Your task to perform on an android device: toggle airplane mode Image 0: 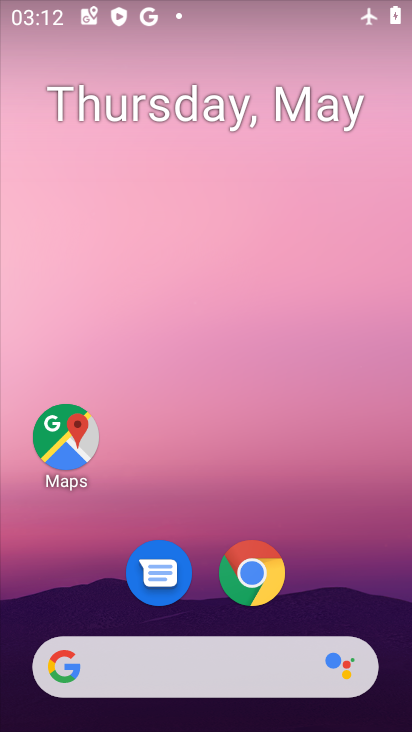
Step 0: drag from (355, 600) to (353, 150)
Your task to perform on an android device: toggle airplane mode Image 1: 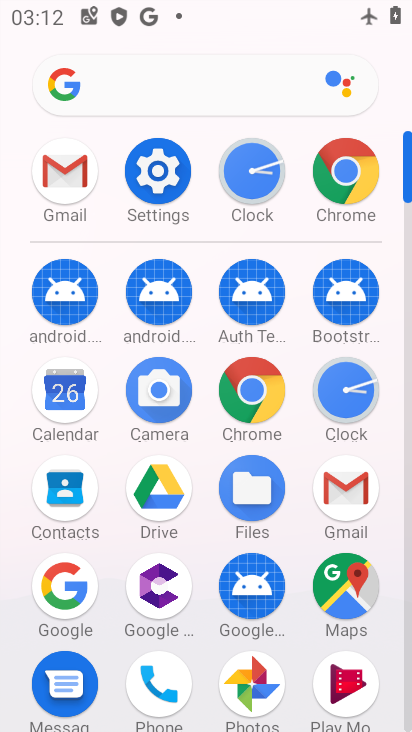
Step 1: click (161, 159)
Your task to perform on an android device: toggle airplane mode Image 2: 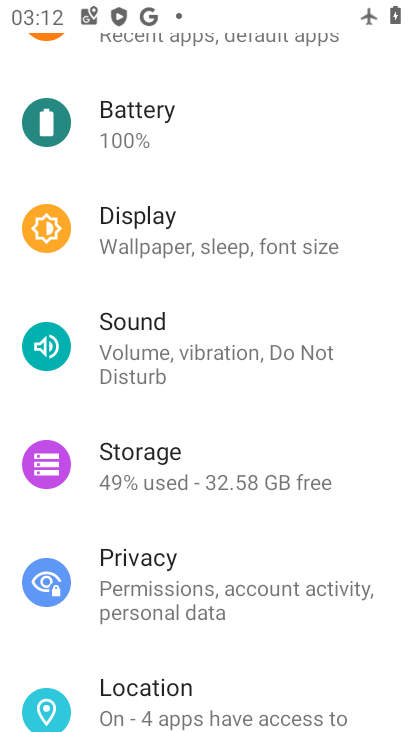
Step 2: drag from (251, 106) to (255, 533)
Your task to perform on an android device: toggle airplane mode Image 3: 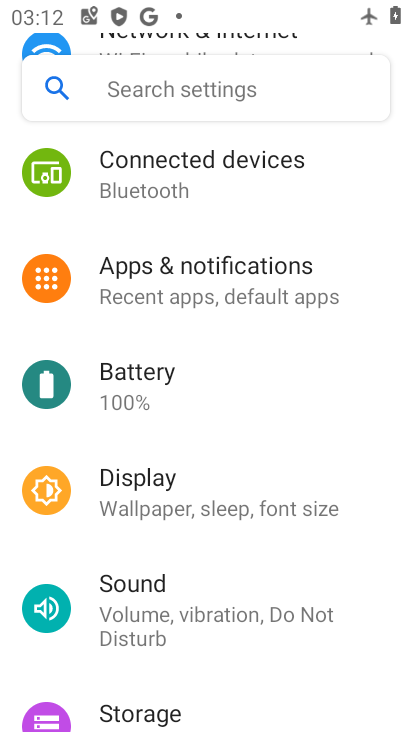
Step 3: drag from (197, 160) to (217, 521)
Your task to perform on an android device: toggle airplane mode Image 4: 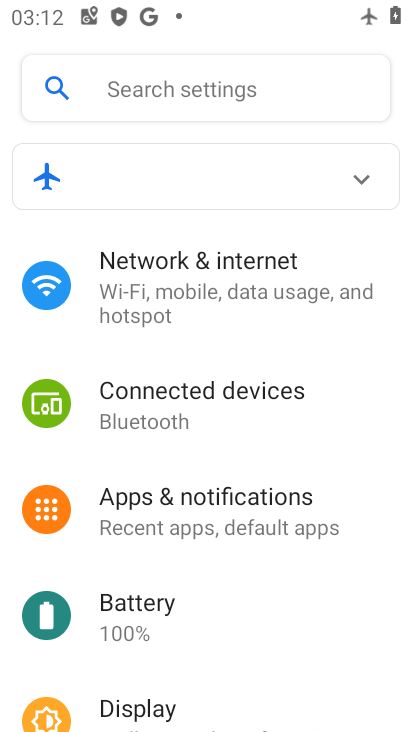
Step 4: click (217, 268)
Your task to perform on an android device: toggle airplane mode Image 5: 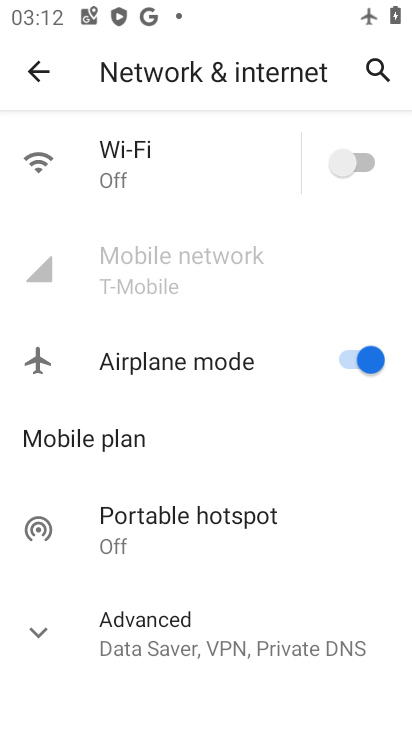
Step 5: click (356, 365)
Your task to perform on an android device: toggle airplane mode Image 6: 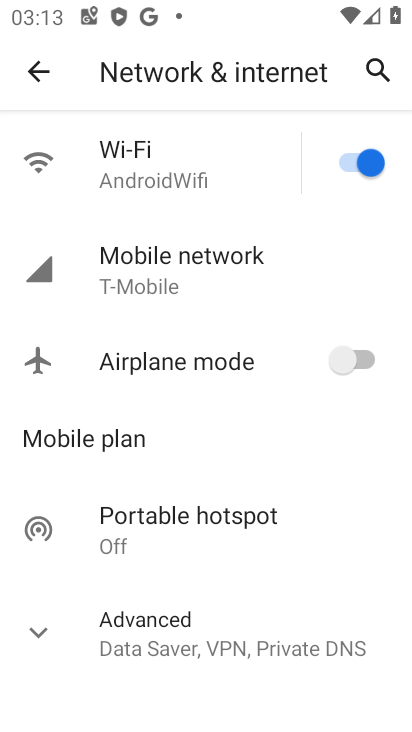
Step 6: task complete